Your task to perform on an android device: Show me popular games on the Play Store Image 0: 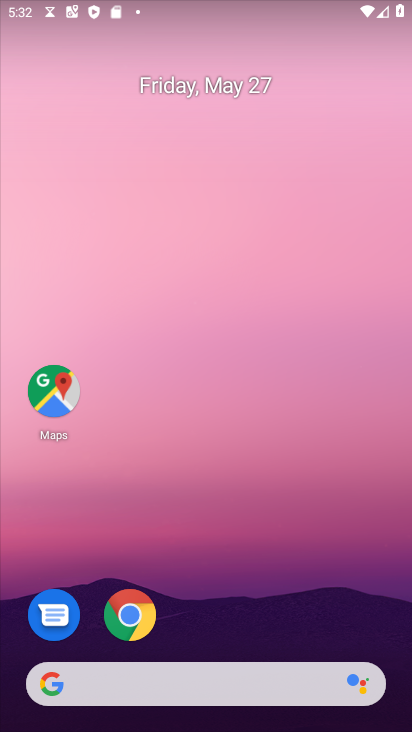
Step 0: drag from (324, 487) to (211, 98)
Your task to perform on an android device: Show me popular games on the Play Store Image 1: 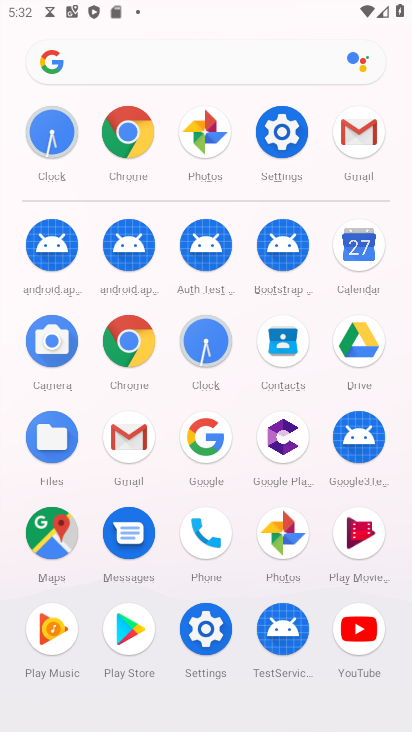
Step 1: click (128, 626)
Your task to perform on an android device: Show me popular games on the Play Store Image 2: 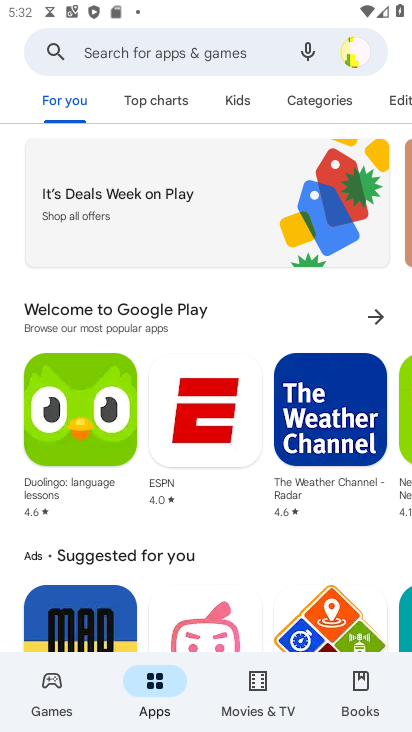
Step 2: click (153, 100)
Your task to perform on an android device: Show me popular games on the Play Store Image 3: 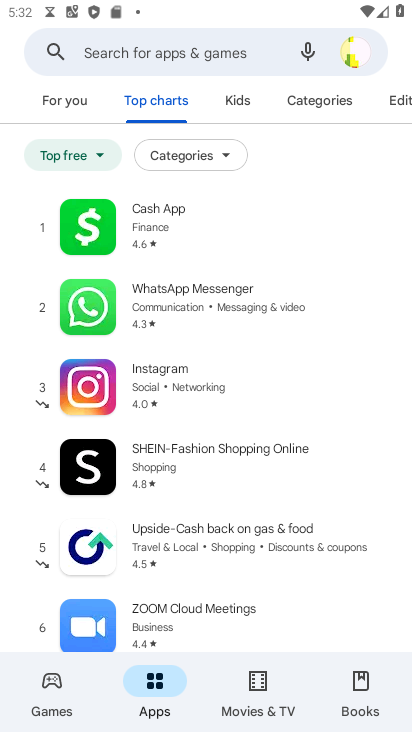
Step 3: task complete